Your task to perform on an android device: Go to settings Image 0: 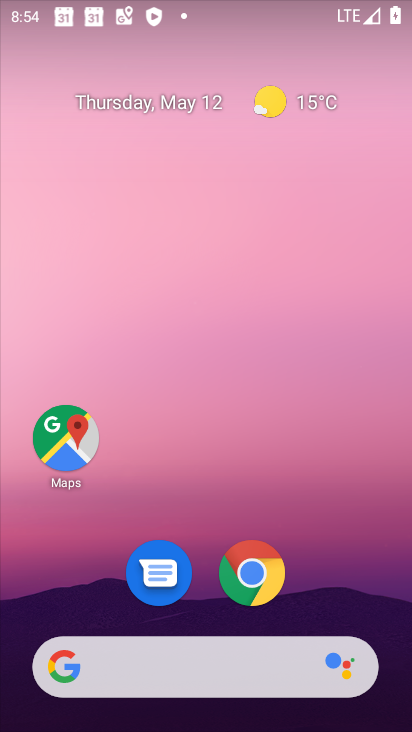
Step 0: drag from (311, 537) to (187, 52)
Your task to perform on an android device: Go to settings Image 1: 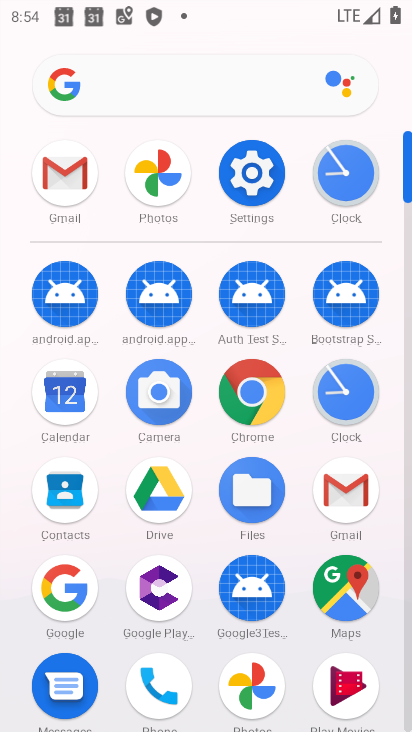
Step 1: click (261, 176)
Your task to perform on an android device: Go to settings Image 2: 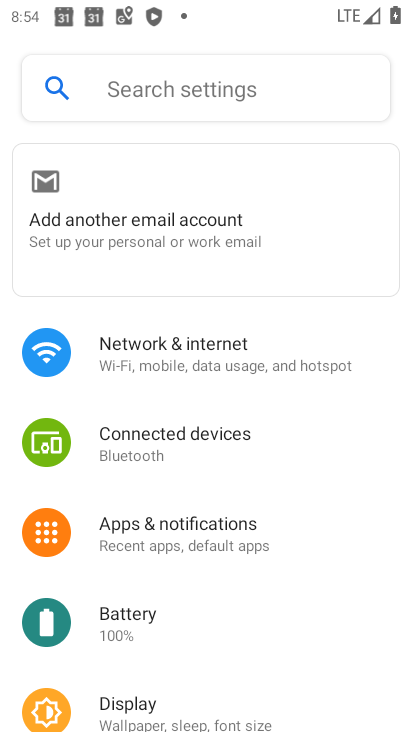
Step 2: task complete